Your task to perform on an android device: Go to Yahoo.com Image 0: 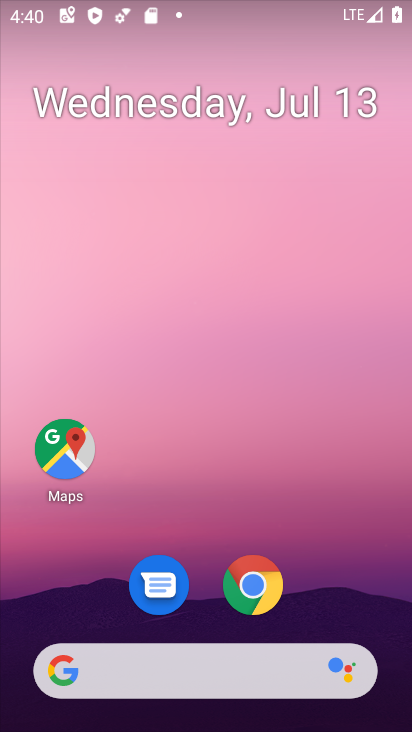
Step 0: click (246, 683)
Your task to perform on an android device: Go to Yahoo.com Image 1: 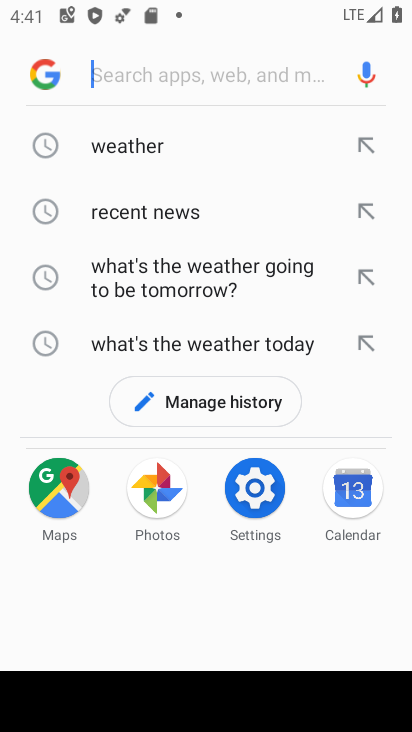
Step 1: type "yahoo.com"
Your task to perform on an android device: Go to Yahoo.com Image 2: 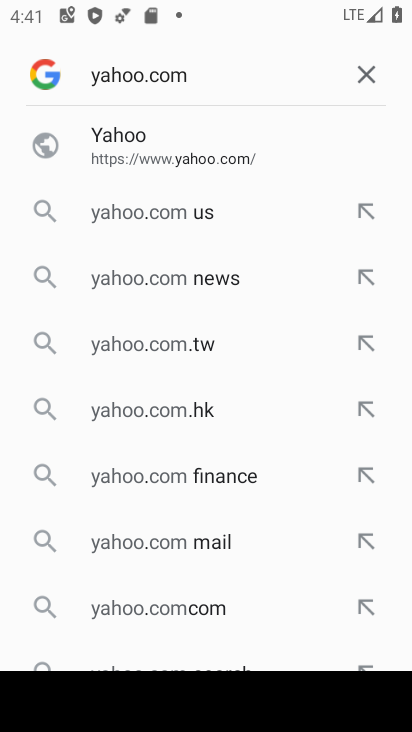
Step 2: click (142, 158)
Your task to perform on an android device: Go to Yahoo.com Image 3: 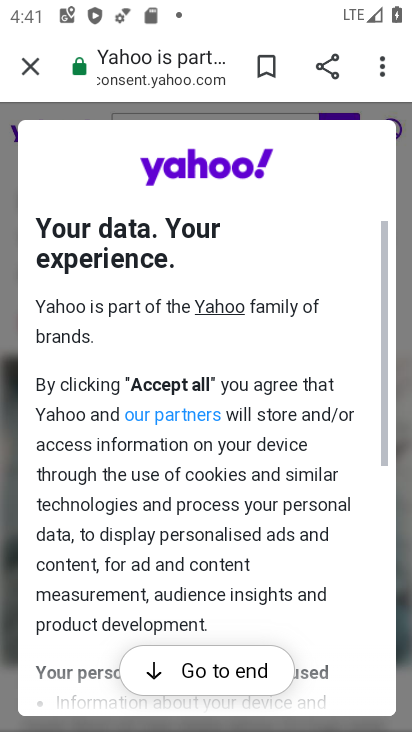
Step 3: click (226, 658)
Your task to perform on an android device: Go to Yahoo.com Image 4: 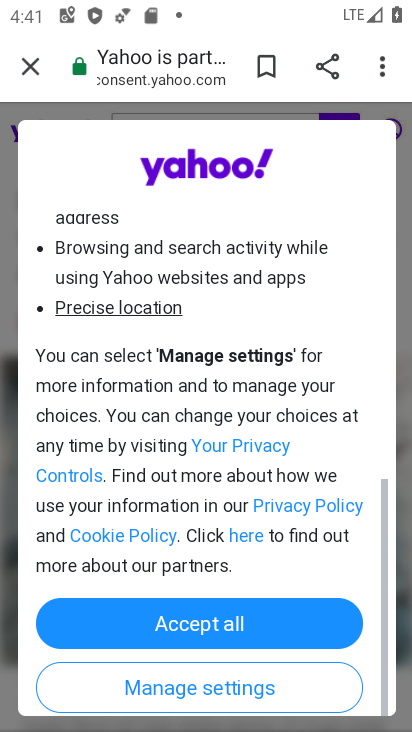
Step 4: click (239, 632)
Your task to perform on an android device: Go to Yahoo.com Image 5: 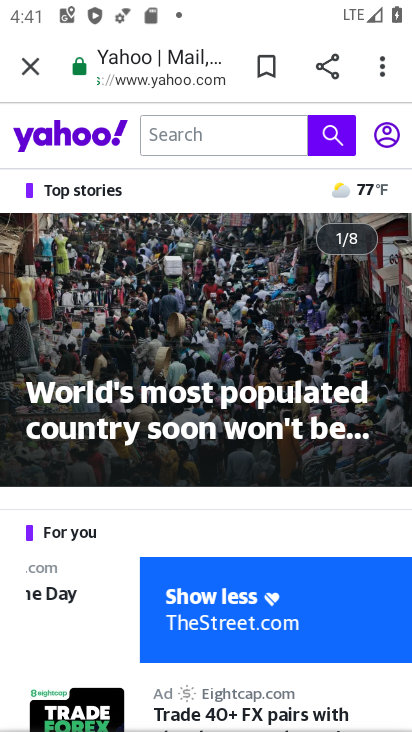
Step 5: task complete